Your task to perform on an android device: empty trash in the gmail app Image 0: 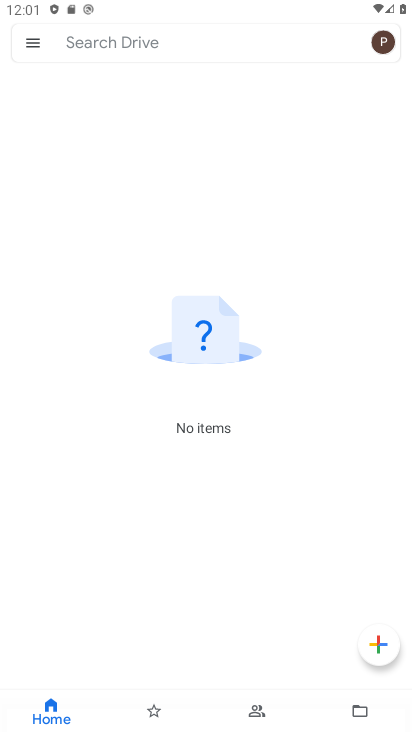
Step 0: press home button
Your task to perform on an android device: empty trash in the gmail app Image 1: 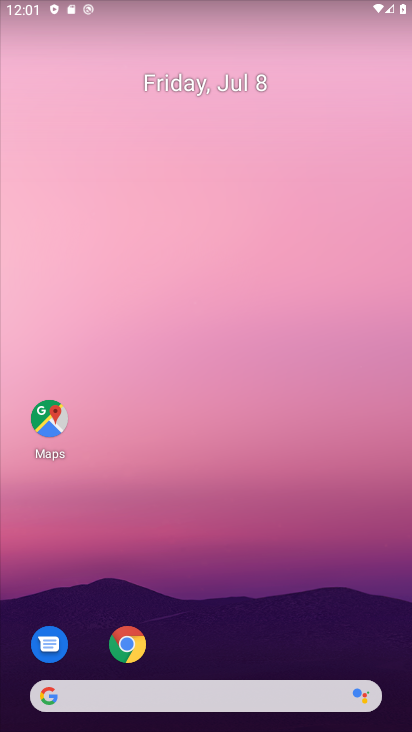
Step 1: drag from (228, 685) to (171, 155)
Your task to perform on an android device: empty trash in the gmail app Image 2: 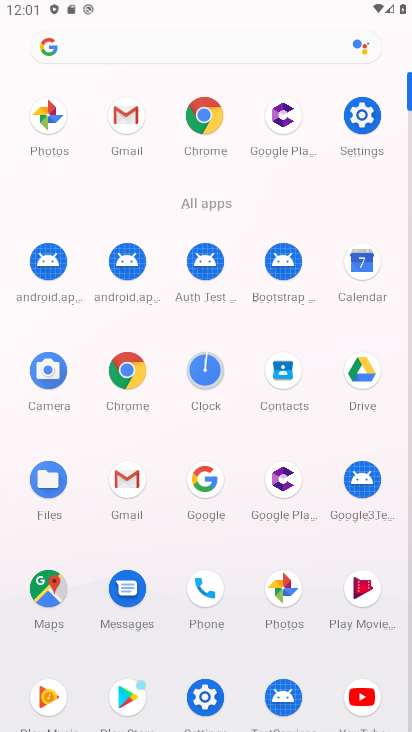
Step 2: click (126, 127)
Your task to perform on an android device: empty trash in the gmail app Image 3: 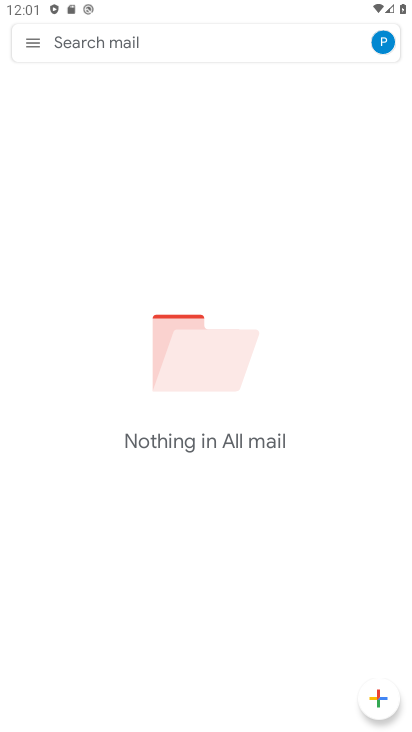
Step 3: click (31, 37)
Your task to perform on an android device: empty trash in the gmail app Image 4: 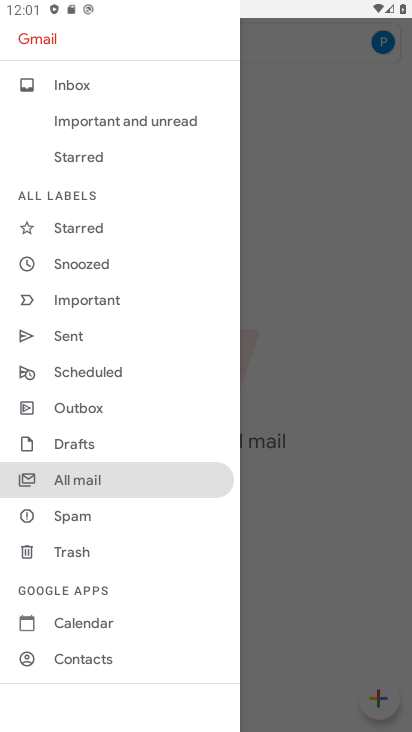
Step 4: click (87, 552)
Your task to perform on an android device: empty trash in the gmail app Image 5: 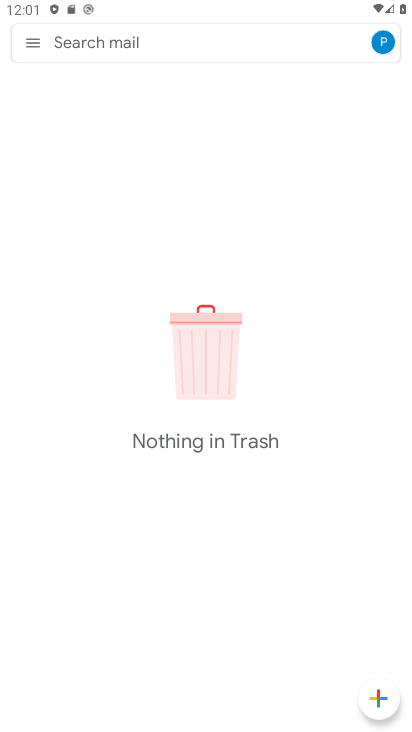
Step 5: task complete